Your task to perform on an android device: Search for Mexican restaurants on Maps Image 0: 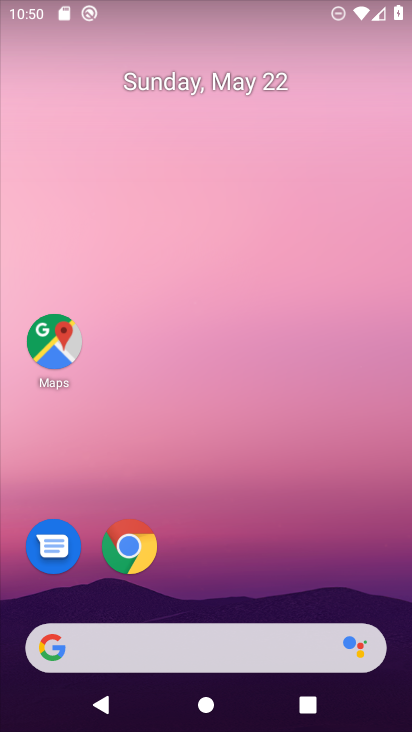
Step 0: drag from (210, 572) to (259, 65)
Your task to perform on an android device: Search for Mexican restaurants on Maps Image 1: 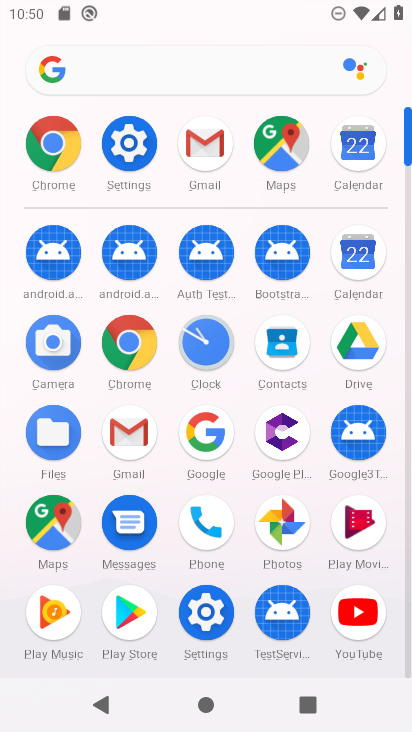
Step 1: click (55, 523)
Your task to perform on an android device: Search for Mexican restaurants on Maps Image 2: 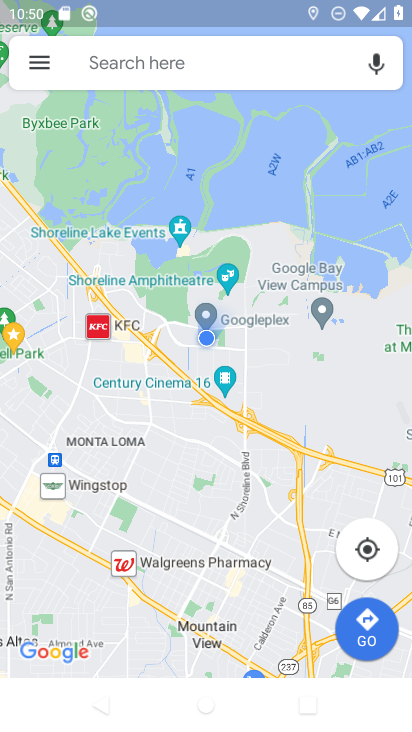
Step 2: click (163, 59)
Your task to perform on an android device: Search for Mexican restaurants on Maps Image 3: 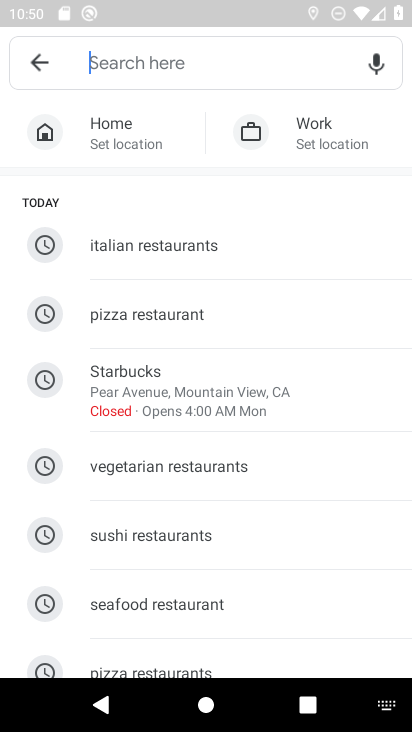
Step 3: type "mexican restaurants"
Your task to perform on an android device: Search for Mexican restaurants on Maps Image 4: 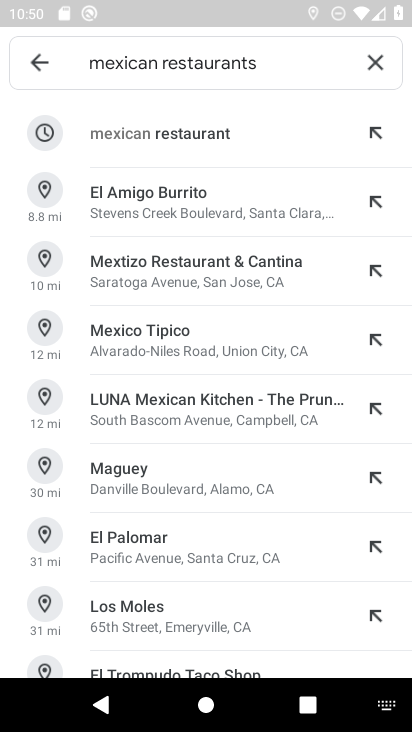
Step 4: click (186, 130)
Your task to perform on an android device: Search for Mexican restaurants on Maps Image 5: 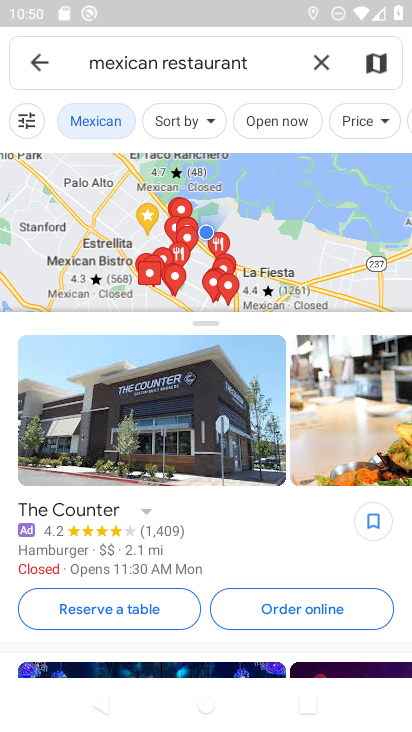
Step 5: task complete